Your task to perform on an android device: turn off airplane mode Image 0: 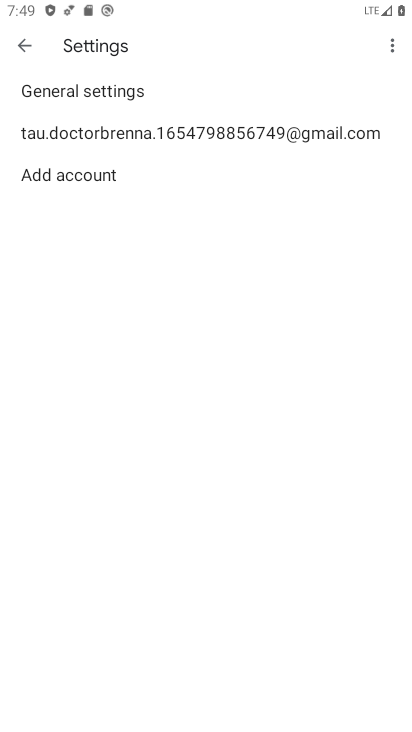
Step 0: press home button
Your task to perform on an android device: turn off airplane mode Image 1: 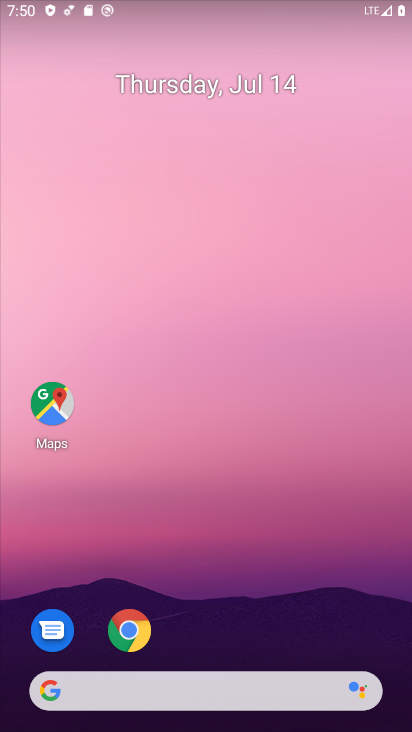
Step 1: drag from (282, 567) to (399, 10)
Your task to perform on an android device: turn off airplane mode Image 2: 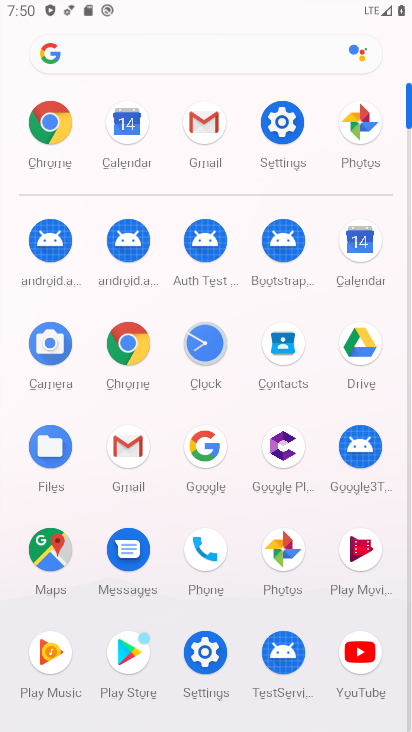
Step 2: click (273, 104)
Your task to perform on an android device: turn off airplane mode Image 3: 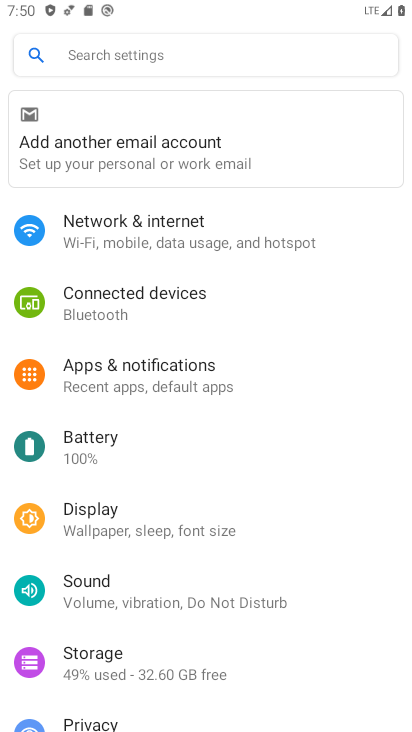
Step 3: click (145, 225)
Your task to perform on an android device: turn off airplane mode Image 4: 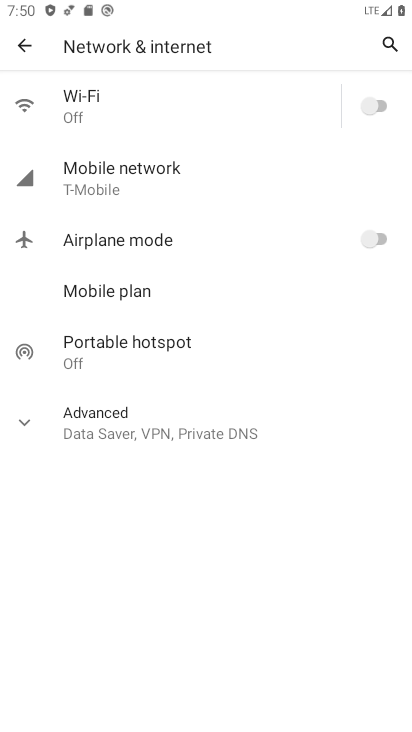
Step 4: task complete